Your task to perform on an android device: Go to Yahoo.com Image 0: 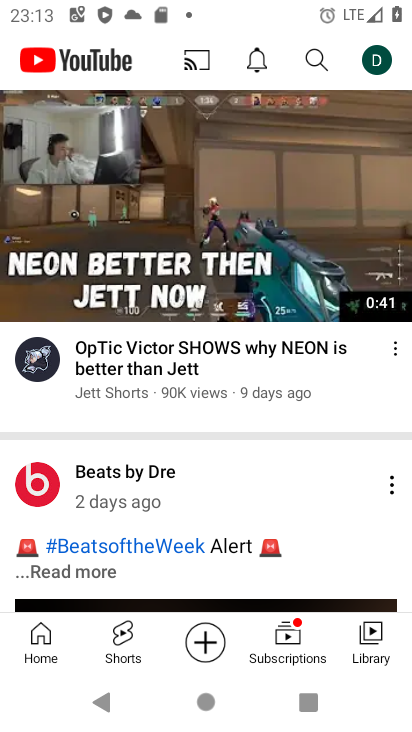
Step 0: press home button
Your task to perform on an android device: Go to Yahoo.com Image 1: 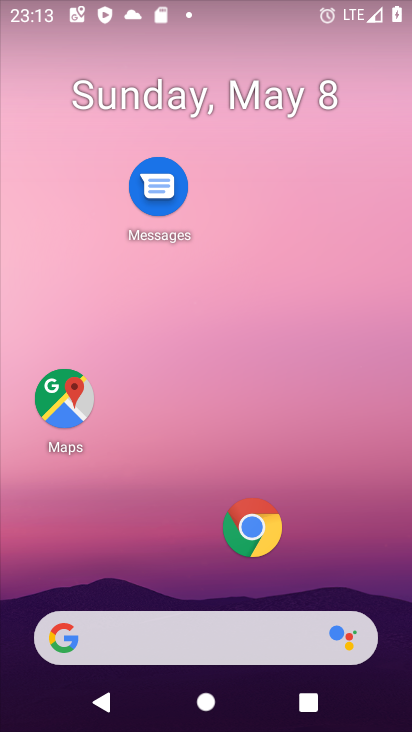
Step 1: click (251, 526)
Your task to perform on an android device: Go to Yahoo.com Image 2: 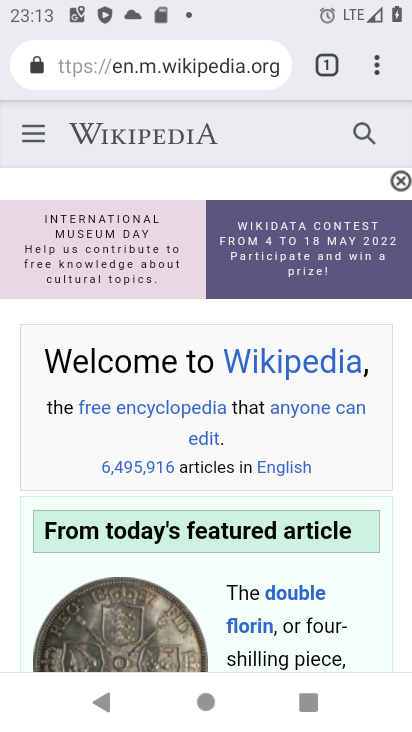
Step 2: click (369, 60)
Your task to perform on an android device: Go to Yahoo.com Image 3: 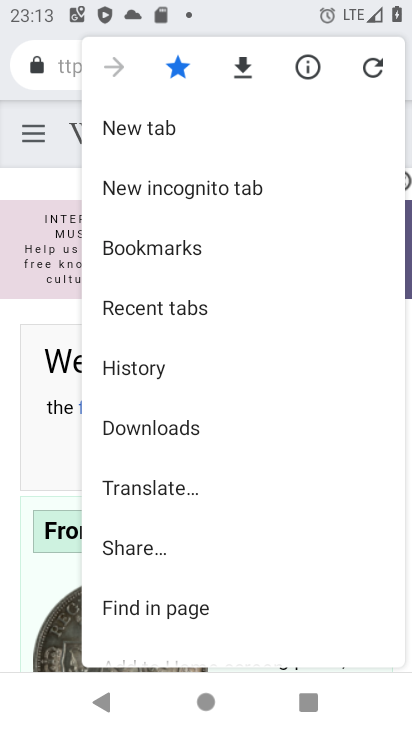
Step 3: click (53, 99)
Your task to perform on an android device: Go to Yahoo.com Image 4: 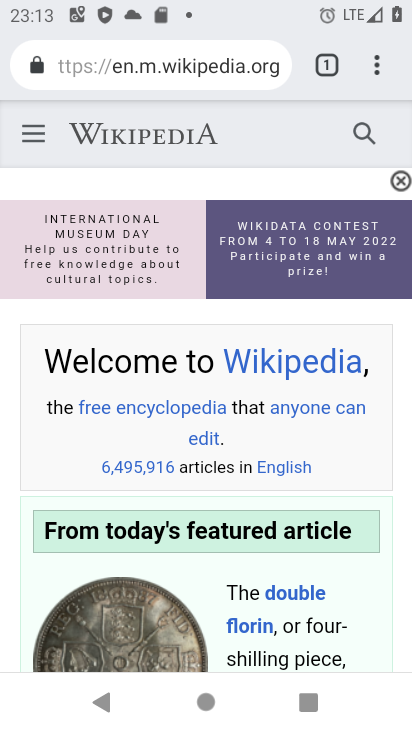
Step 4: task complete